Your task to perform on an android device: Open Chrome and go to settings Image 0: 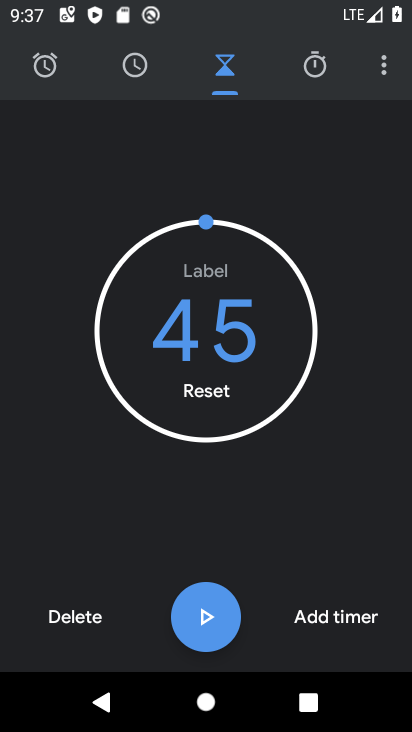
Step 0: press home button
Your task to perform on an android device: Open Chrome and go to settings Image 1: 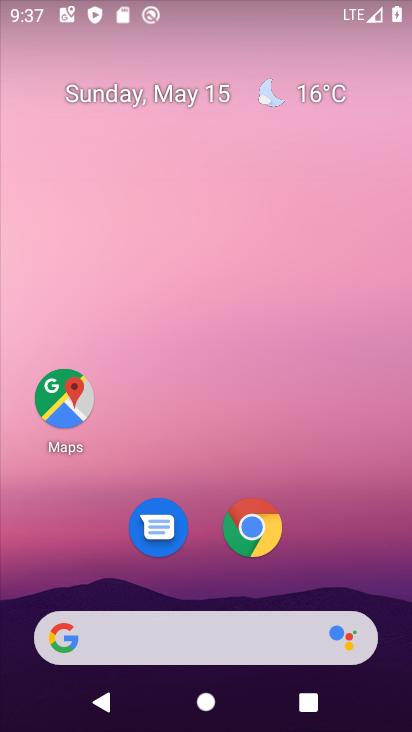
Step 1: click (252, 520)
Your task to perform on an android device: Open Chrome and go to settings Image 2: 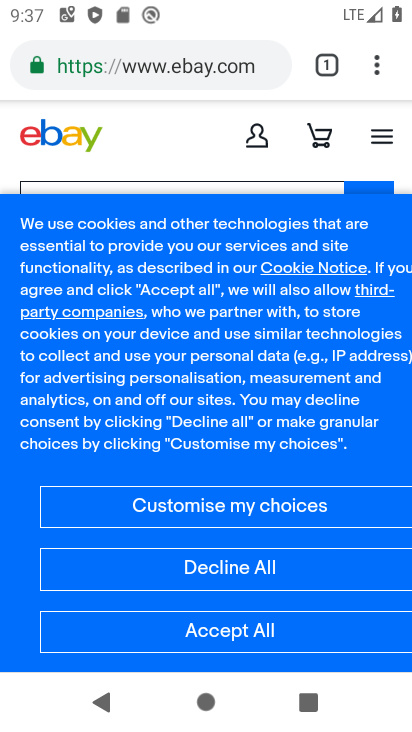
Step 2: click (382, 69)
Your task to perform on an android device: Open Chrome and go to settings Image 3: 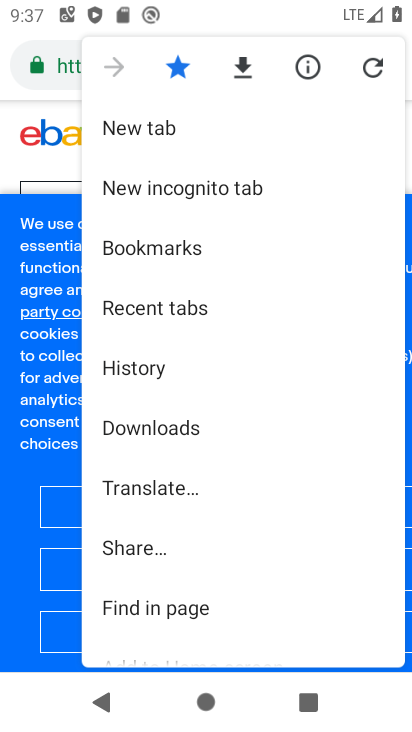
Step 3: drag from (246, 562) to (260, 98)
Your task to perform on an android device: Open Chrome and go to settings Image 4: 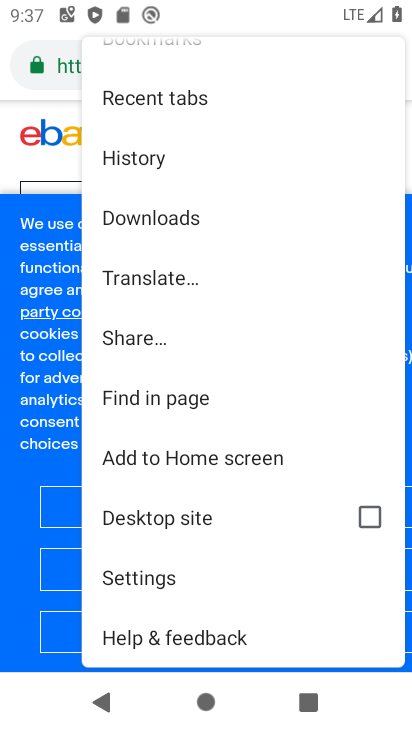
Step 4: click (149, 578)
Your task to perform on an android device: Open Chrome and go to settings Image 5: 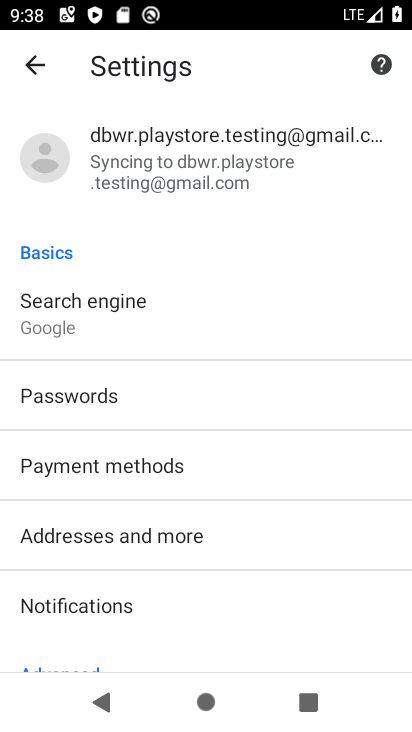
Step 5: task complete